Your task to perform on an android device: Search for Italian restaurants on Maps Image 0: 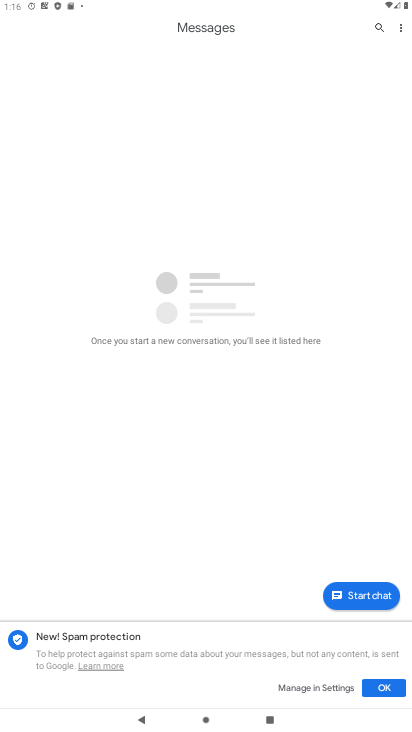
Step 0: press home button
Your task to perform on an android device: Search for Italian restaurants on Maps Image 1: 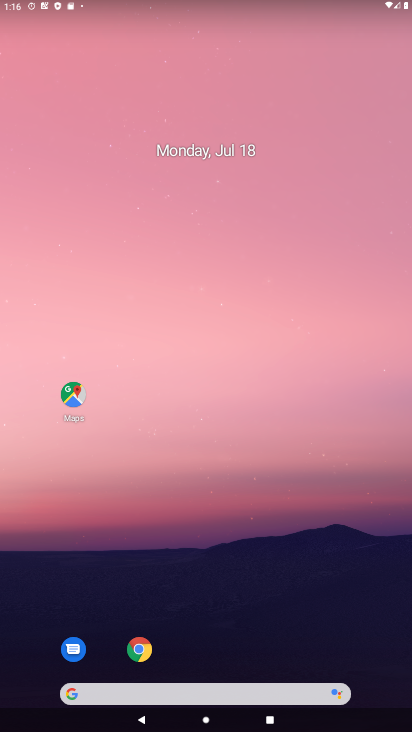
Step 1: click (75, 395)
Your task to perform on an android device: Search for Italian restaurants on Maps Image 2: 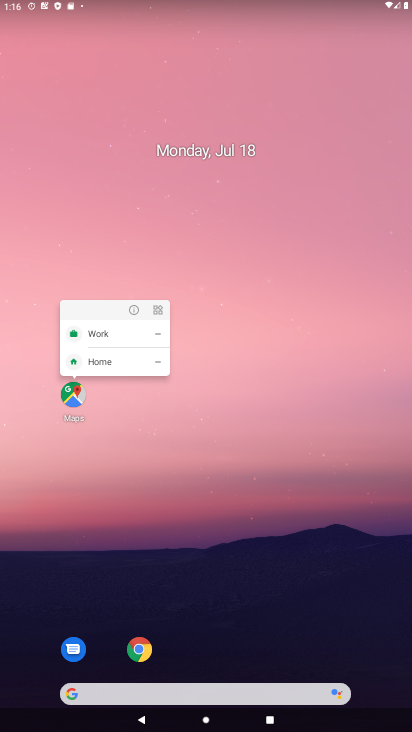
Step 2: click (77, 395)
Your task to perform on an android device: Search for Italian restaurants on Maps Image 3: 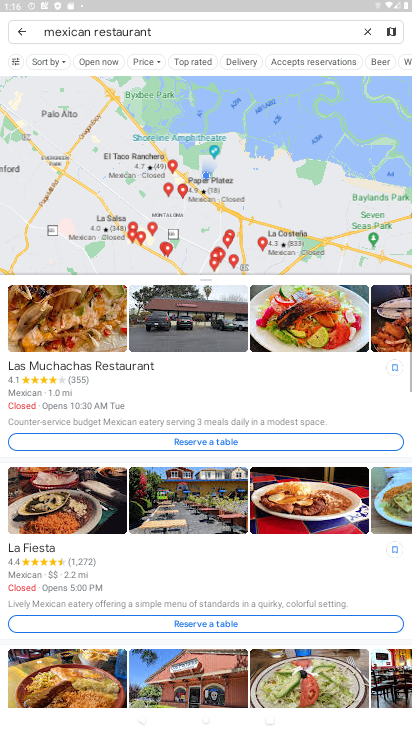
Step 3: click (363, 25)
Your task to perform on an android device: Search for Italian restaurants on Maps Image 4: 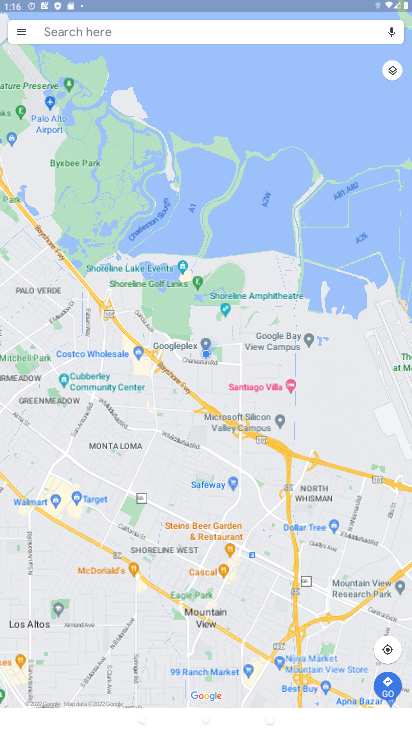
Step 4: click (105, 38)
Your task to perform on an android device: Search for Italian restaurants on Maps Image 5: 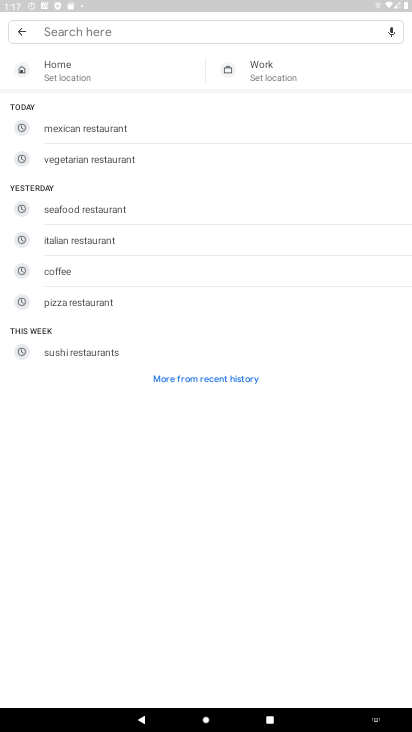
Step 5: click (55, 246)
Your task to perform on an android device: Search for Italian restaurants on Maps Image 6: 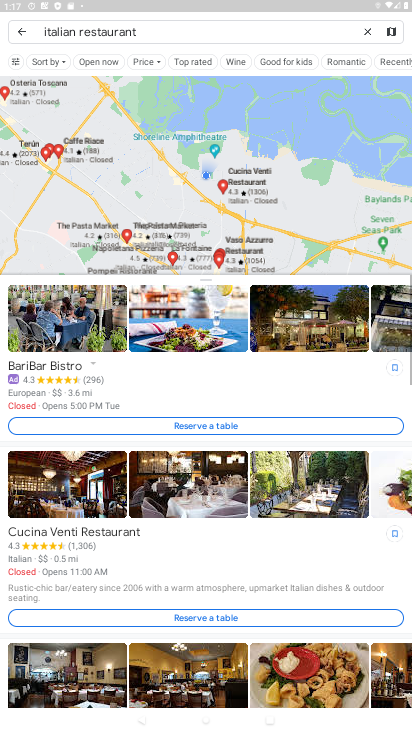
Step 6: task complete